Your task to perform on an android device: turn on the 24-hour format for clock Image 0: 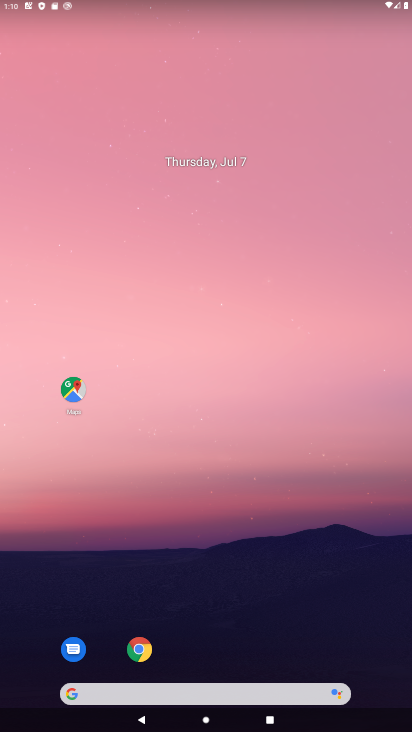
Step 0: drag from (316, 574) to (263, 275)
Your task to perform on an android device: turn on the 24-hour format for clock Image 1: 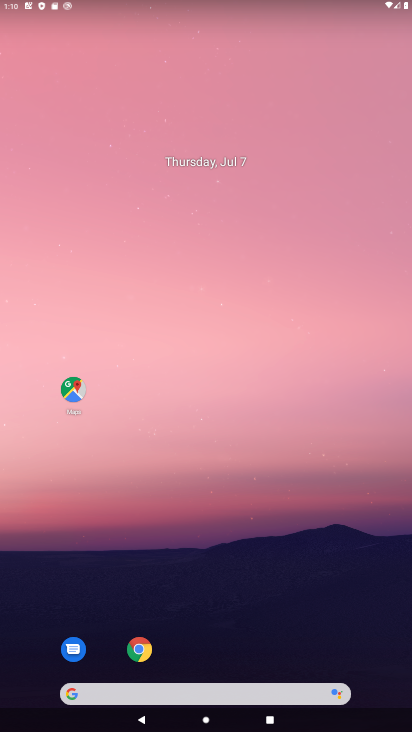
Step 1: drag from (274, 610) to (204, 218)
Your task to perform on an android device: turn on the 24-hour format for clock Image 2: 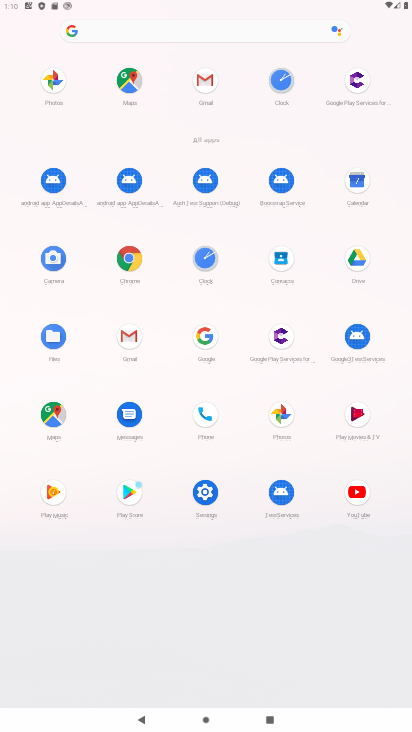
Step 2: click (279, 76)
Your task to perform on an android device: turn on the 24-hour format for clock Image 3: 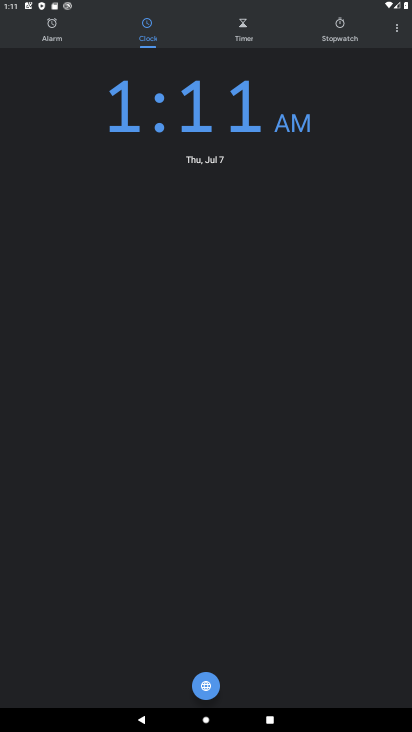
Step 3: click (392, 32)
Your task to perform on an android device: turn on the 24-hour format for clock Image 4: 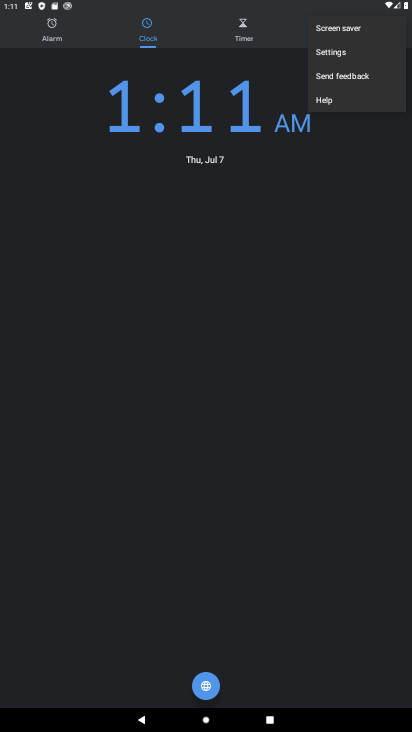
Step 4: click (335, 58)
Your task to perform on an android device: turn on the 24-hour format for clock Image 5: 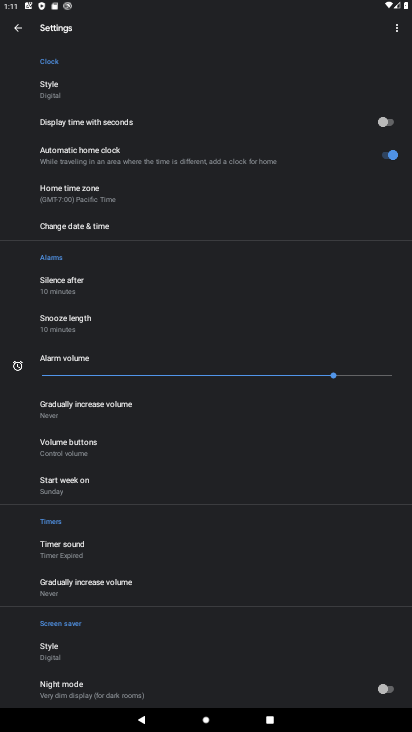
Step 5: drag from (322, 491) to (283, 0)
Your task to perform on an android device: turn on the 24-hour format for clock Image 6: 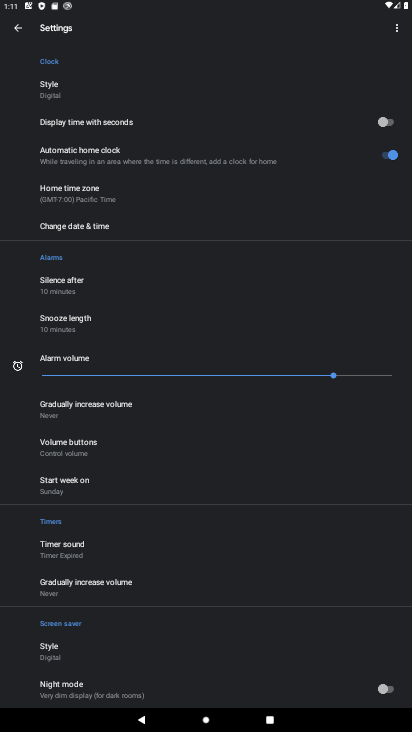
Step 6: drag from (272, 681) to (255, 432)
Your task to perform on an android device: turn on the 24-hour format for clock Image 7: 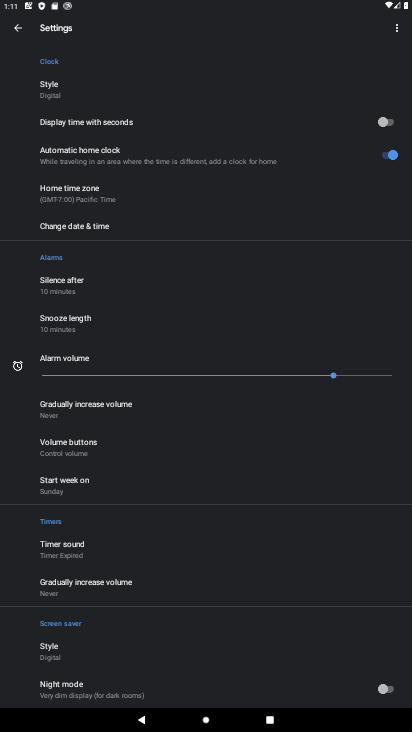
Step 7: click (106, 228)
Your task to perform on an android device: turn on the 24-hour format for clock Image 8: 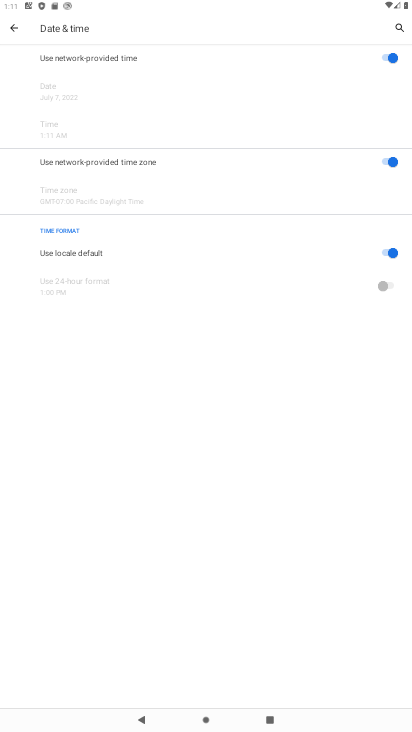
Step 8: click (386, 247)
Your task to perform on an android device: turn on the 24-hour format for clock Image 9: 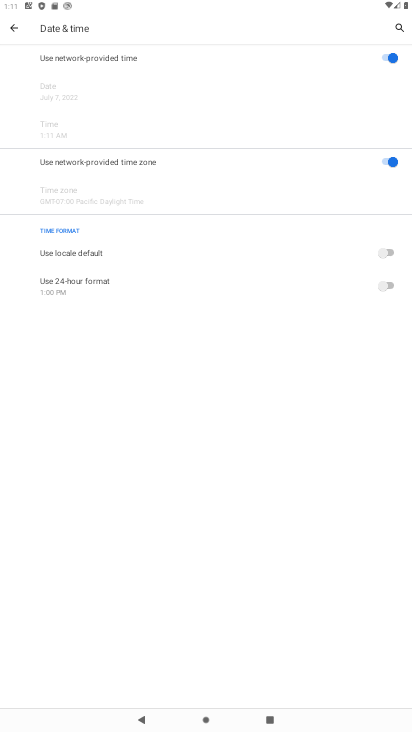
Step 9: click (387, 283)
Your task to perform on an android device: turn on the 24-hour format for clock Image 10: 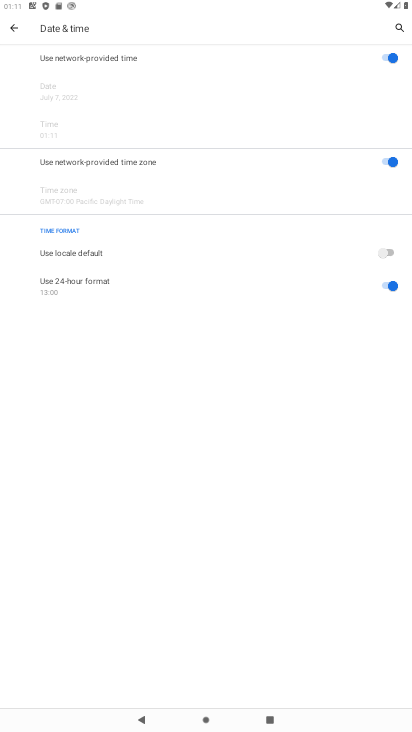
Step 10: task complete